Your task to perform on an android device: create a new album in the google photos Image 0: 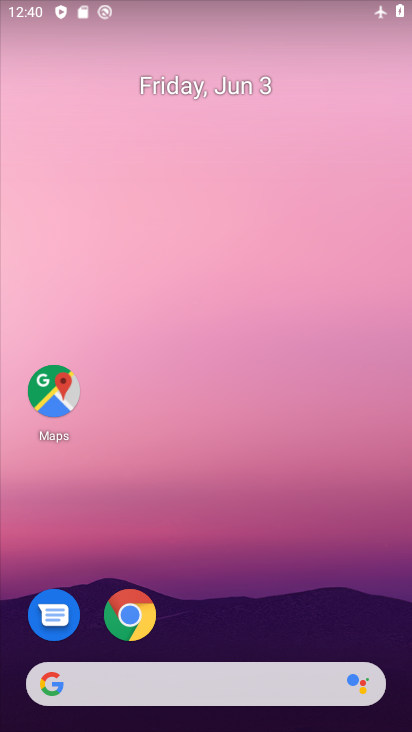
Step 0: drag from (194, 559) to (307, 2)
Your task to perform on an android device: create a new album in the google photos Image 1: 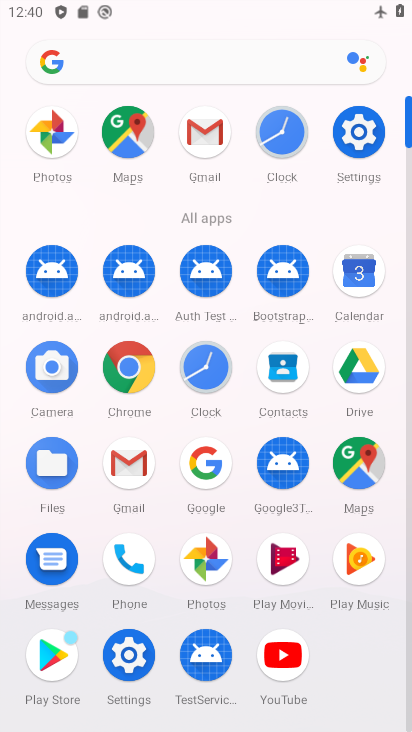
Step 1: click (215, 582)
Your task to perform on an android device: create a new album in the google photos Image 2: 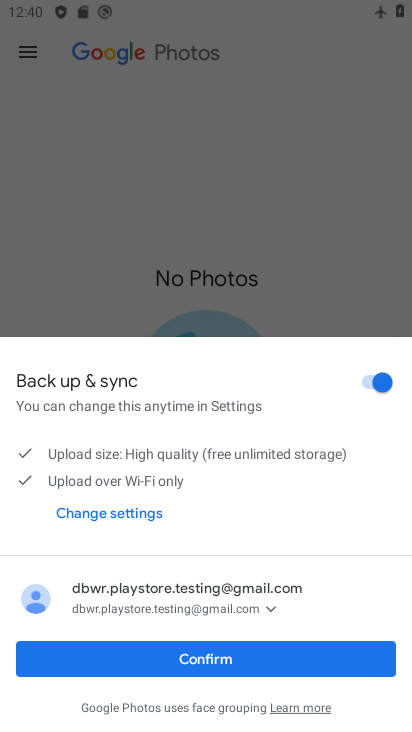
Step 2: click (226, 664)
Your task to perform on an android device: create a new album in the google photos Image 3: 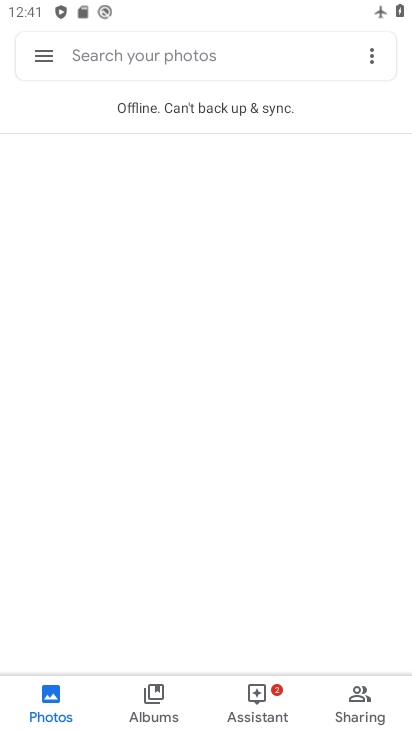
Step 3: drag from (220, 197) to (162, 678)
Your task to perform on an android device: create a new album in the google photos Image 4: 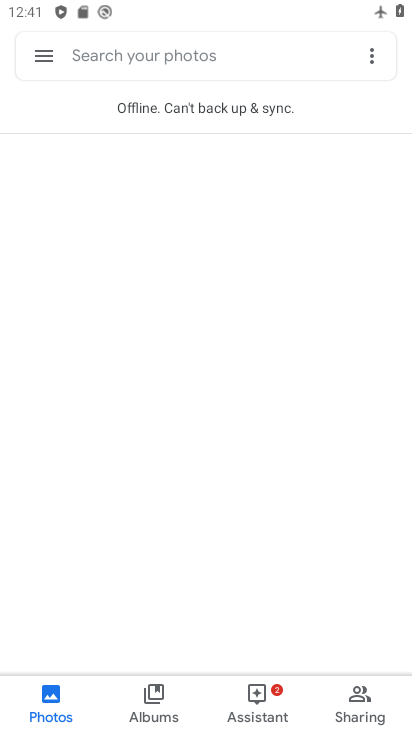
Step 4: click (146, 694)
Your task to perform on an android device: create a new album in the google photos Image 5: 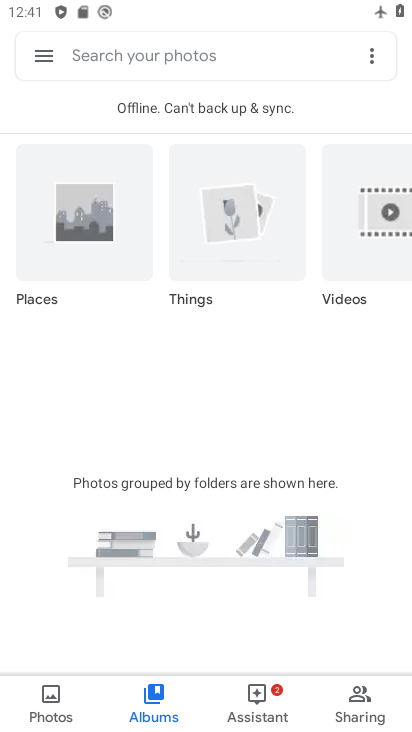
Step 5: task complete